Your task to perform on an android device: What's on my calendar today? Image 0: 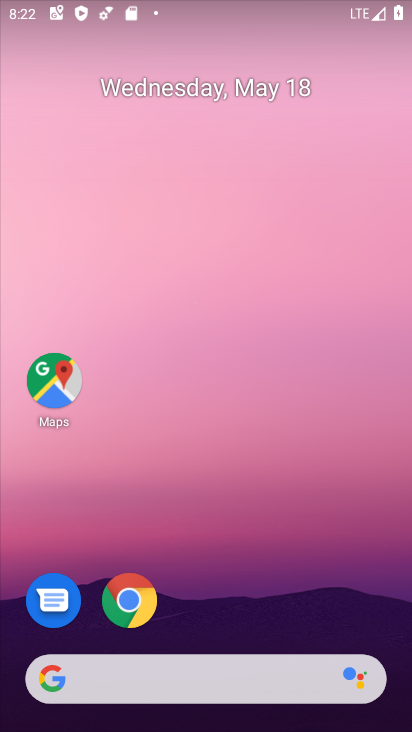
Step 0: drag from (212, 573) to (261, 85)
Your task to perform on an android device: What's on my calendar today? Image 1: 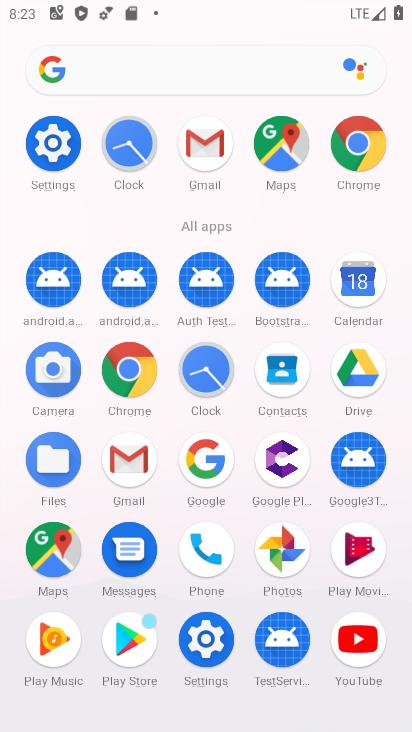
Step 1: click (351, 254)
Your task to perform on an android device: What's on my calendar today? Image 2: 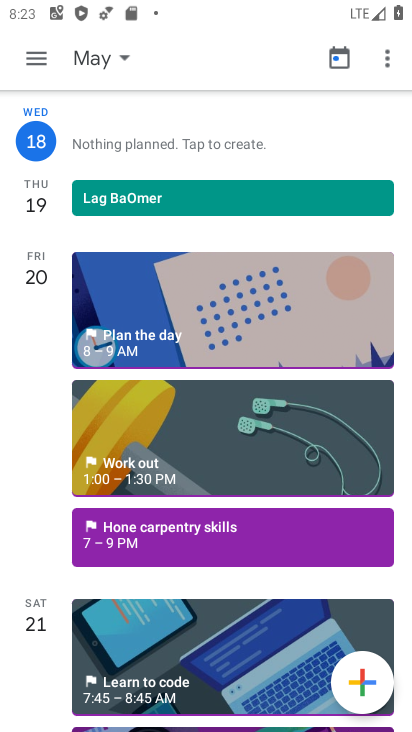
Step 2: click (218, 199)
Your task to perform on an android device: What's on my calendar today? Image 3: 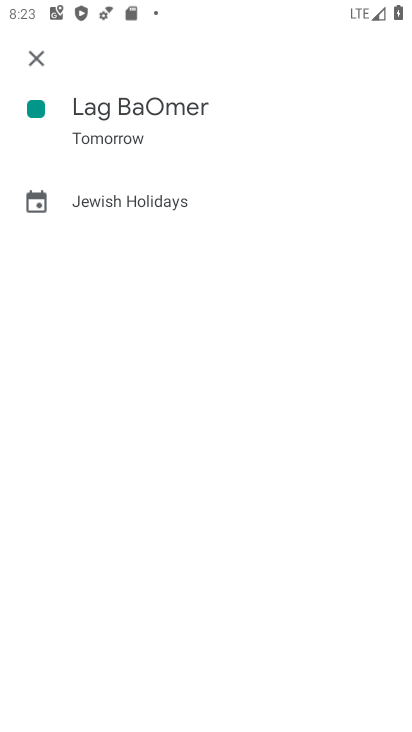
Step 3: task complete